Your task to perform on an android device: Search for sushi restaurants on Maps Image 0: 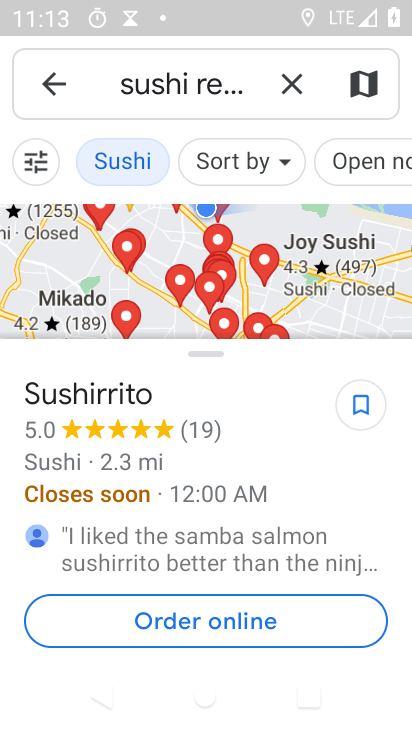
Step 0: task complete